Your task to perform on an android device: add a contact Image 0: 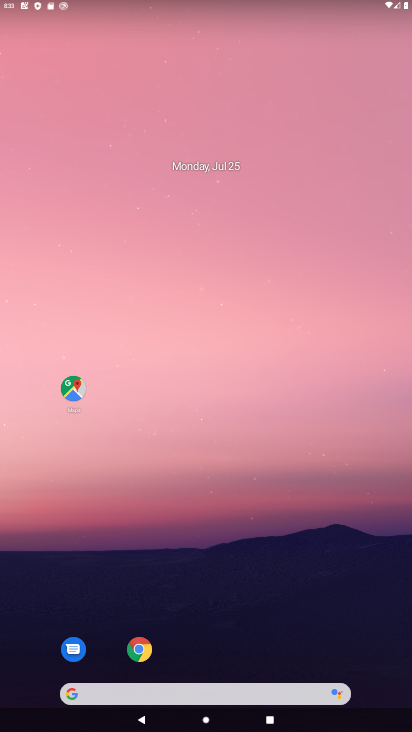
Step 0: drag from (226, 667) to (242, 22)
Your task to perform on an android device: add a contact Image 1: 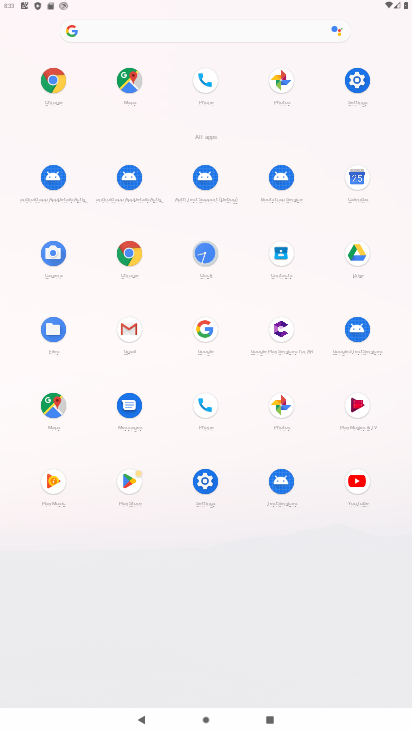
Step 1: click (197, 404)
Your task to perform on an android device: add a contact Image 2: 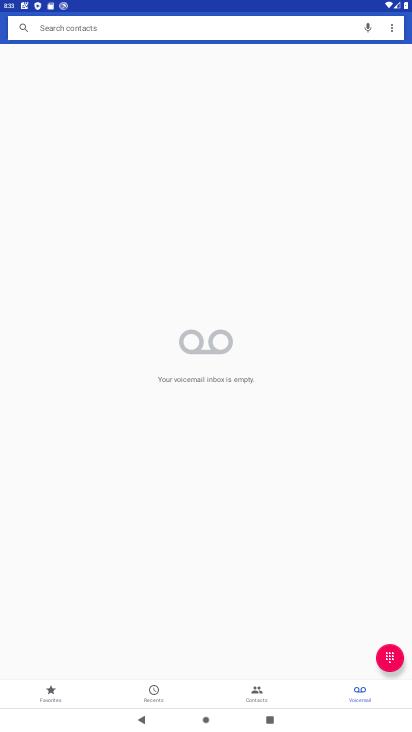
Step 2: click (241, 690)
Your task to perform on an android device: add a contact Image 3: 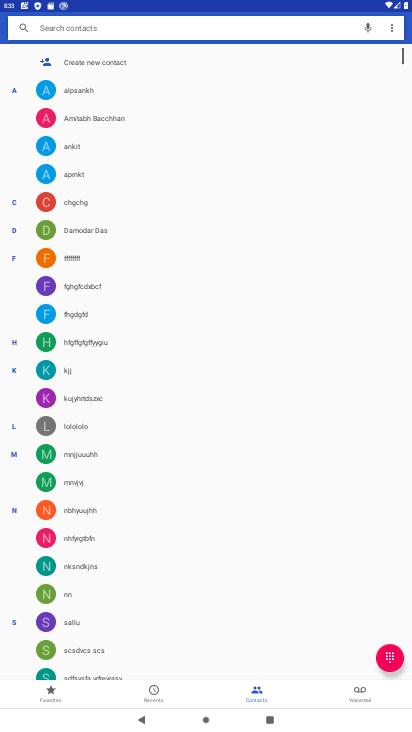
Step 3: click (55, 61)
Your task to perform on an android device: add a contact Image 4: 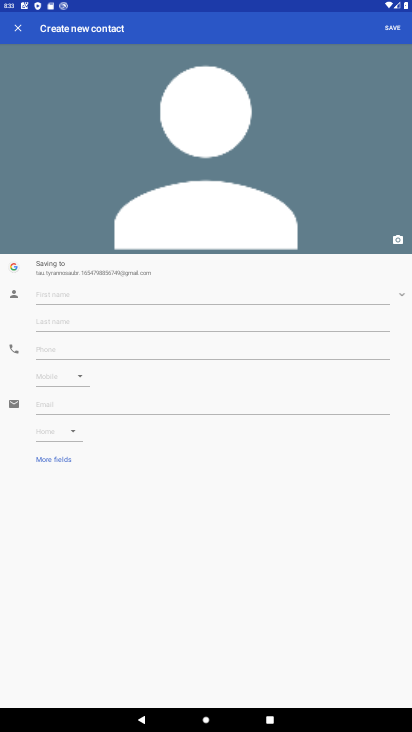
Step 4: click (131, 174)
Your task to perform on an android device: add a contact Image 5: 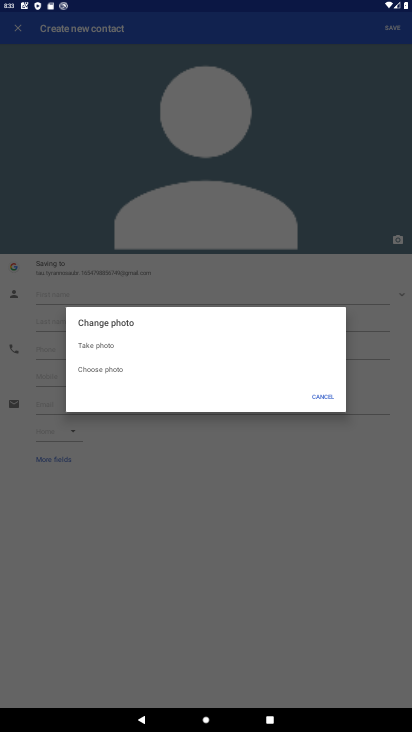
Step 5: click (322, 400)
Your task to perform on an android device: add a contact Image 6: 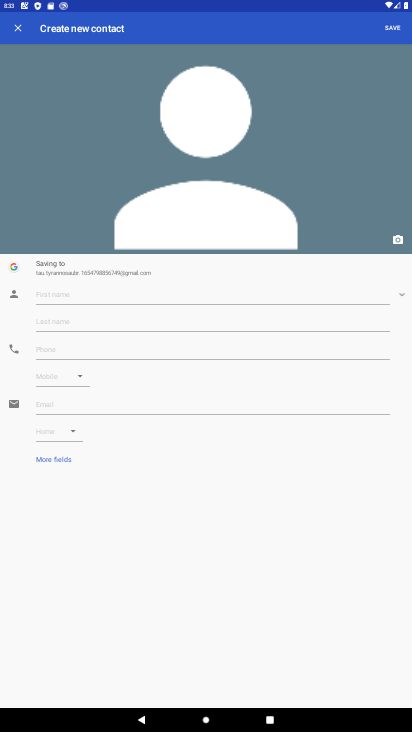
Step 6: click (69, 268)
Your task to perform on an android device: add a contact Image 7: 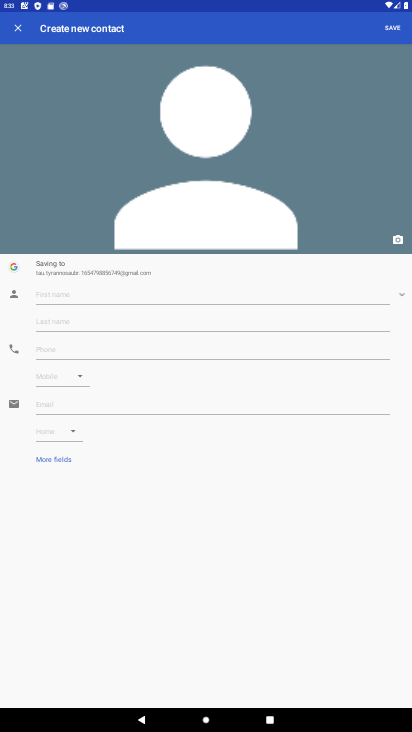
Step 7: click (74, 294)
Your task to perform on an android device: add a contact Image 8: 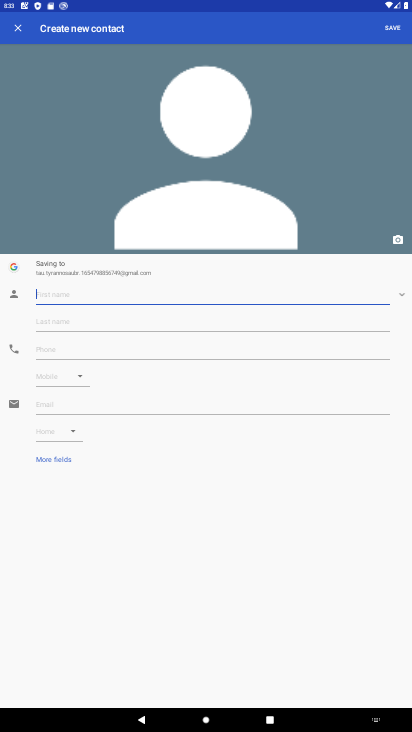
Step 8: type "fedg"
Your task to perform on an android device: add a contact Image 9: 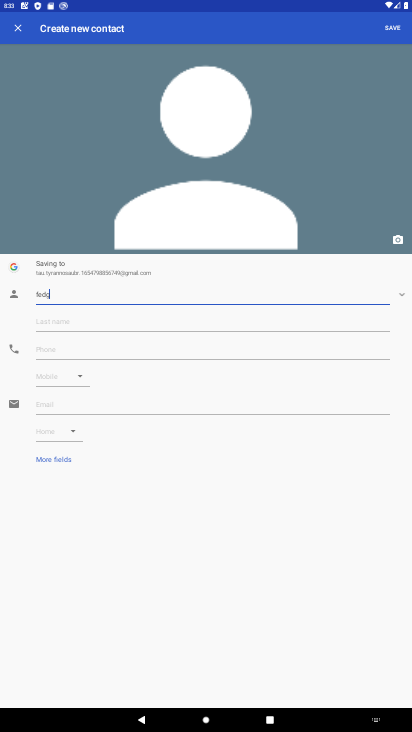
Step 9: click (34, 348)
Your task to perform on an android device: add a contact Image 10: 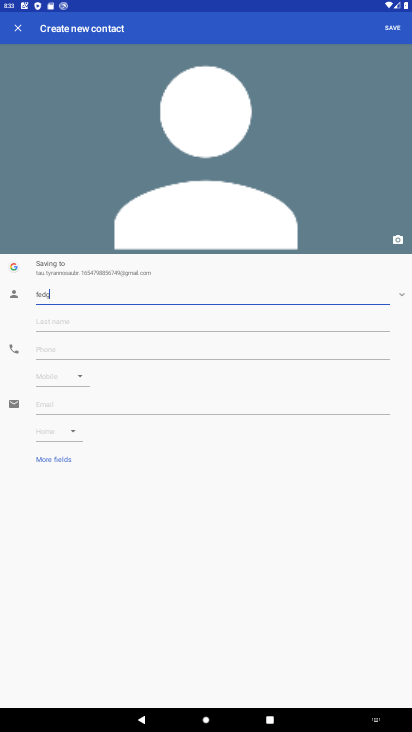
Step 10: type "4r4"
Your task to perform on an android device: add a contact Image 11: 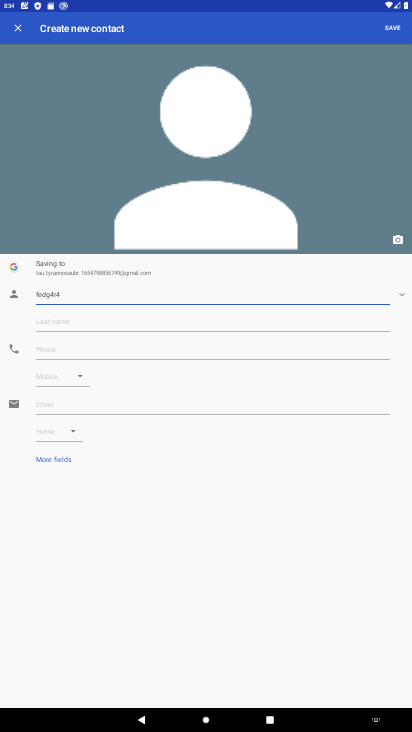
Step 11: click (385, 33)
Your task to perform on an android device: add a contact Image 12: 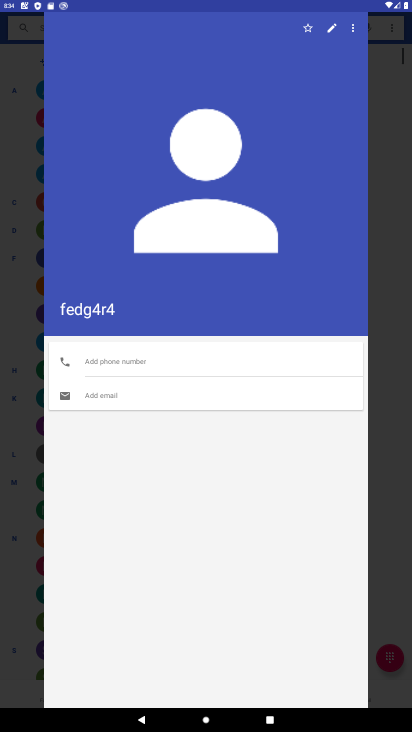
Step 12: task complete